Your task to perform on an android device: allow notifications from all sites in the chrome app Image 0: 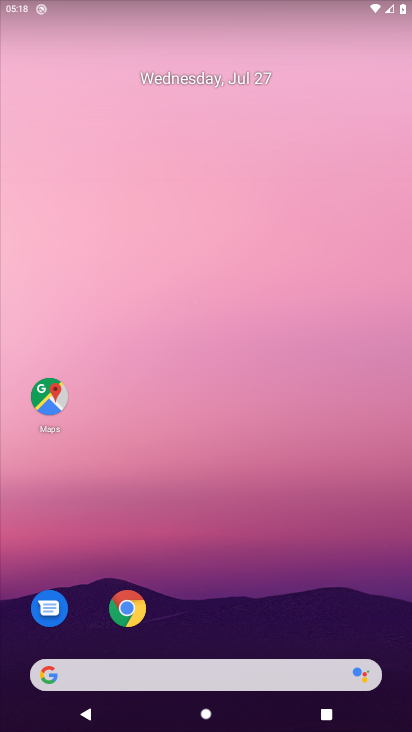
Step 0: press home button
Your task to perform on an android device: allow notifications from all sites in the chrome app Image 1: 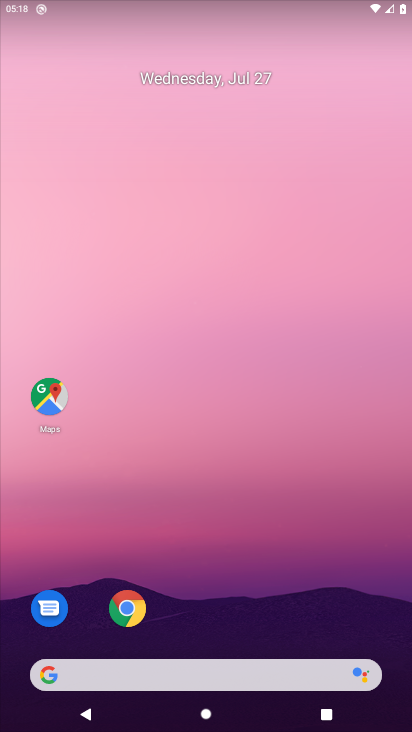
Step 1: press home button
Your task to perform on an android device: allow notifications from all sites in the chrome app Image 2: 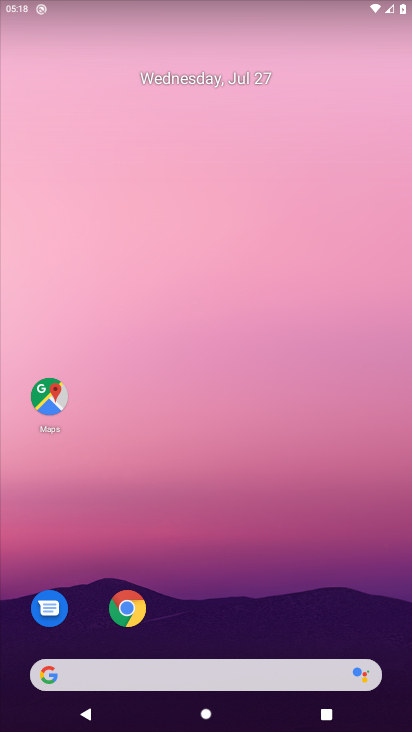
Step 2: drag from (219, 622) to (181, 61)
Your task to perform on an android device: allow notifications from all sites in the chrome app Image 3: 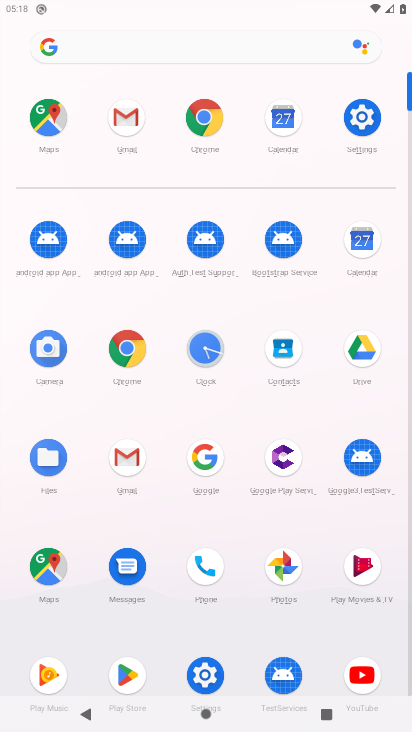
Step 3: click (208, 114)
Your task to perform on an android device: allow notifications from all sites in the chrome app Image 4: 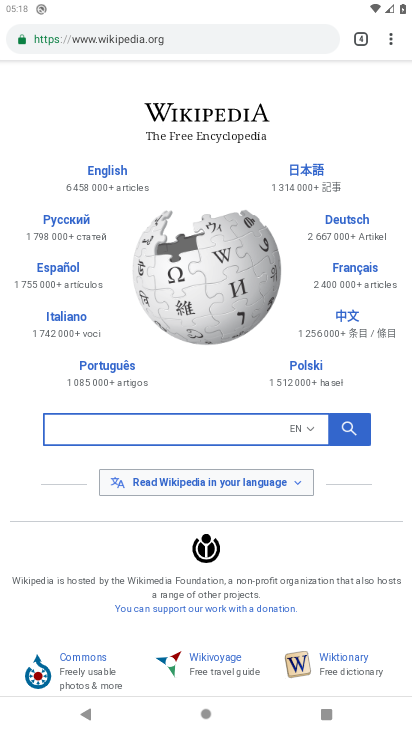
Step 4: drag from (392, 40) to (238, 474)
Your task to perform on an android device: allow notifications from all sites in the chrome app Image 5: 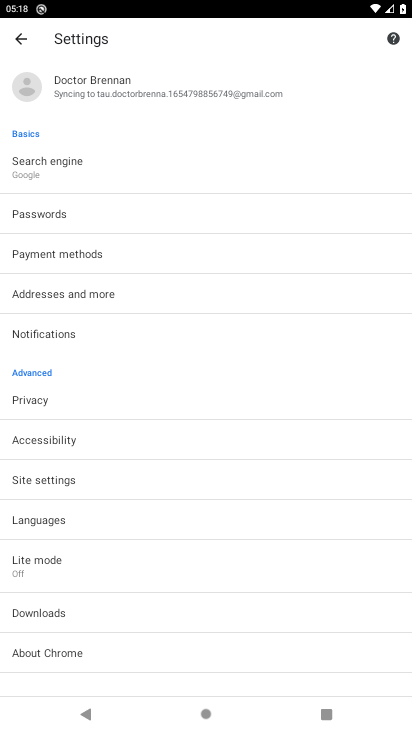
Step 5: click (35, 483)
Your task to perform on an android device: allow notifications from all sites in the chrome app Image 6: 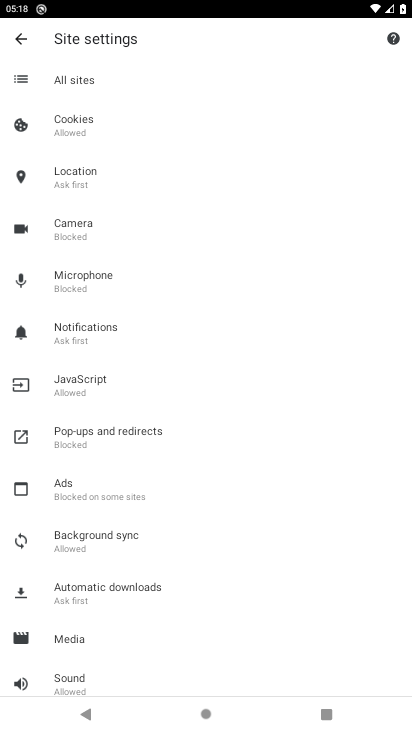
Step 6: click (75, 328)
Your task to perform on an android device: allow notifications from all sites in the chrome app Image 7: 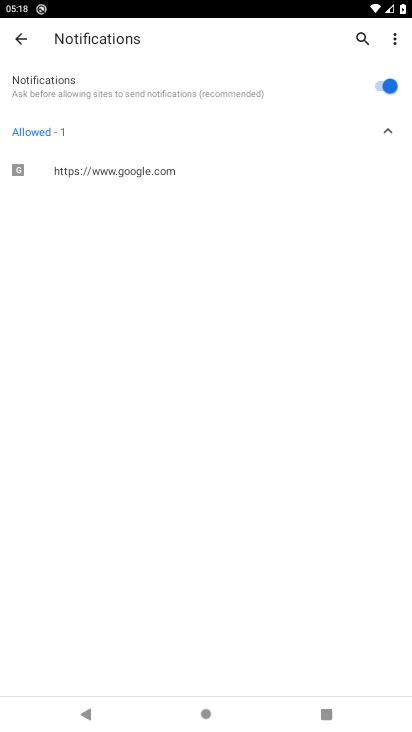
Step 7: task complete